Your task to perform on an android device: make emails show in primary in the gmail app Image 0: 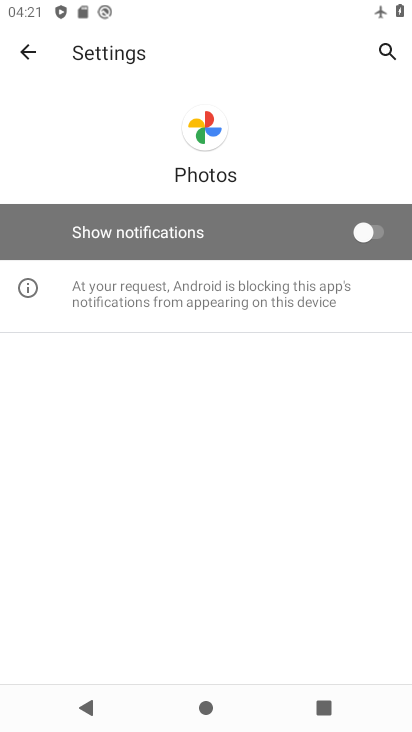
Step 0: press home button
Your task to perform on an android device: make emails show in primary in the gmail app Image 1: 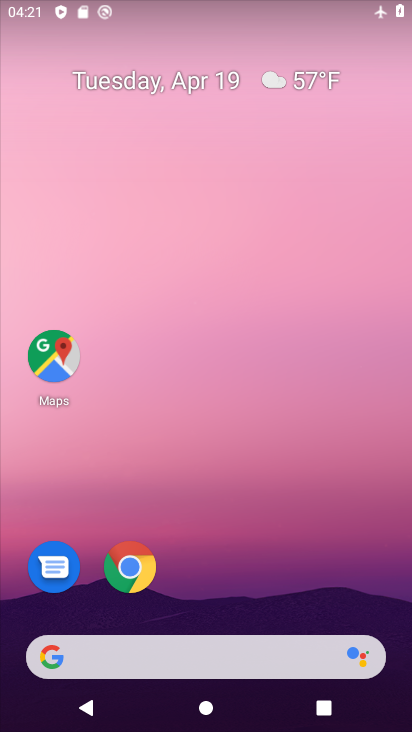
Step 1: drag from (370, 571) to (367, 146)
Your task to perform on an android device: make emails show in primary in the gmail app Image 2: 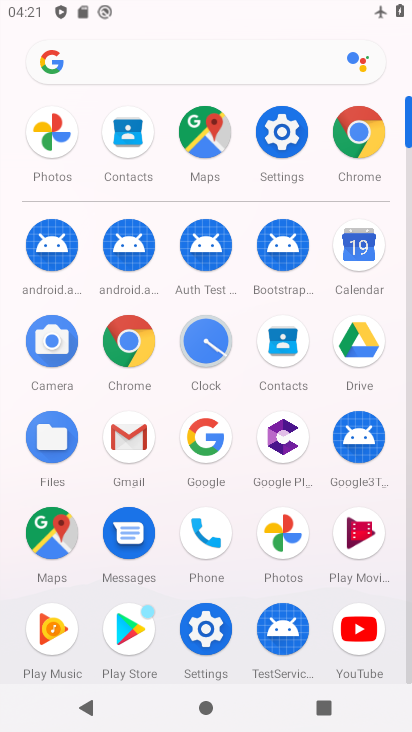
Step 2: click (134, 446)
Your task to perform on an android device: make emails show in primary in the gmail app Image 3: 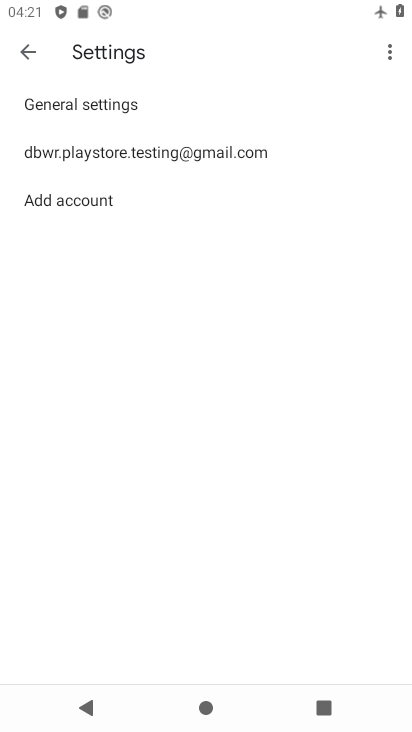
Step 3: click (175, 154)
Your task to perform on an android device: make emails show in primary in the gmail app Image 4: 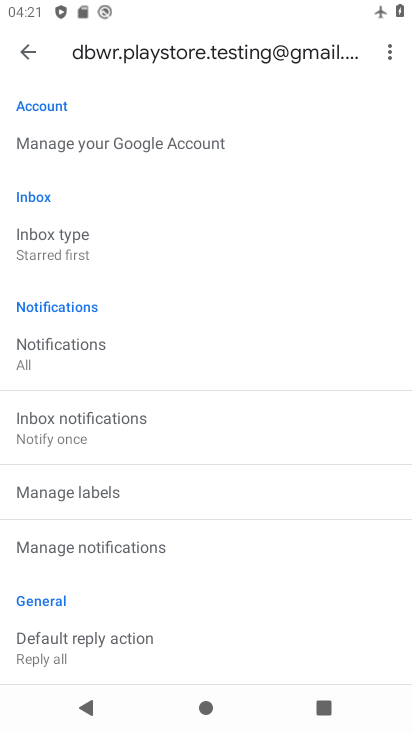
Step 4: drag from (290, 566) to (290, 448)
Your task to perform on an android device: make emails show in primary in the gmail app Image 5: 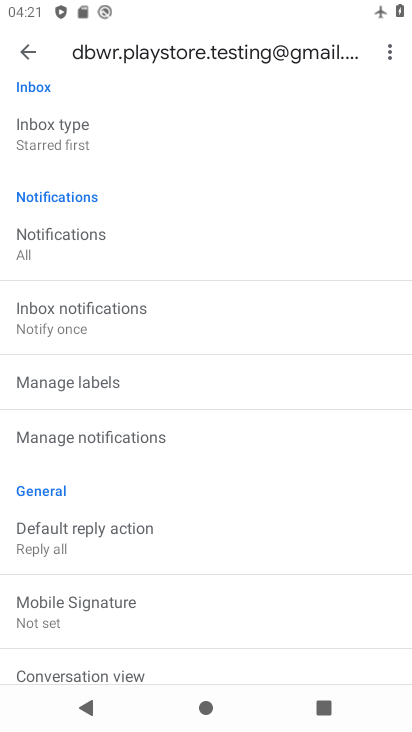
Step 5: drag from (286, 596) to (289, 445)
Your task to perform on an android device: make emails show in primary in the gmail app Image 6: 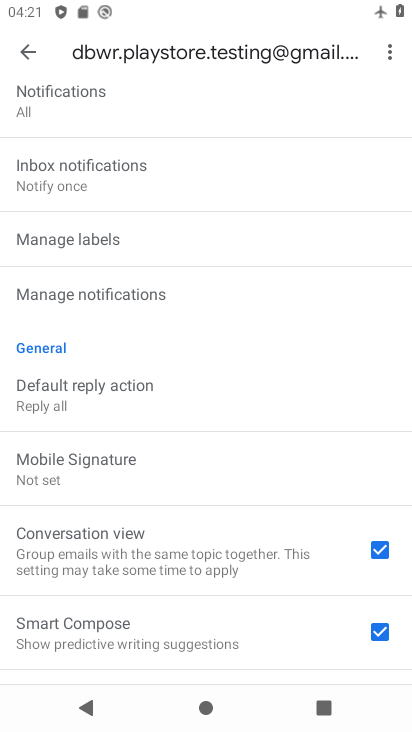
Step 6: drag from (277, 608) to (294, 432)
Your task to perform on an android device: make emails show in primary in the gmail app Image 7: 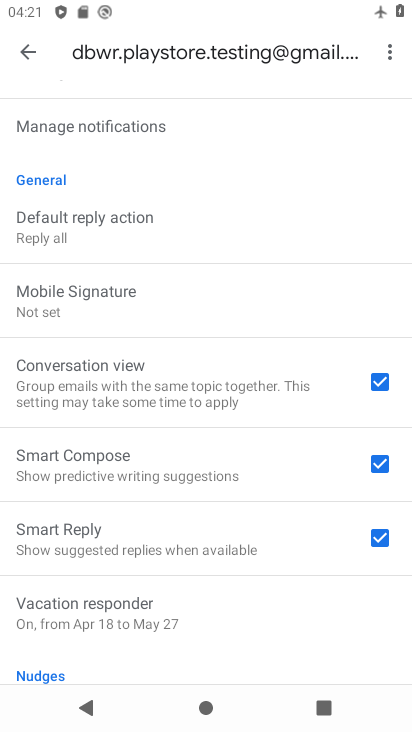
Step 7: drag from (288, 584) to (294, 435)
Your task to perform on an android device: make emails show in primary in the gmail app Image 8: 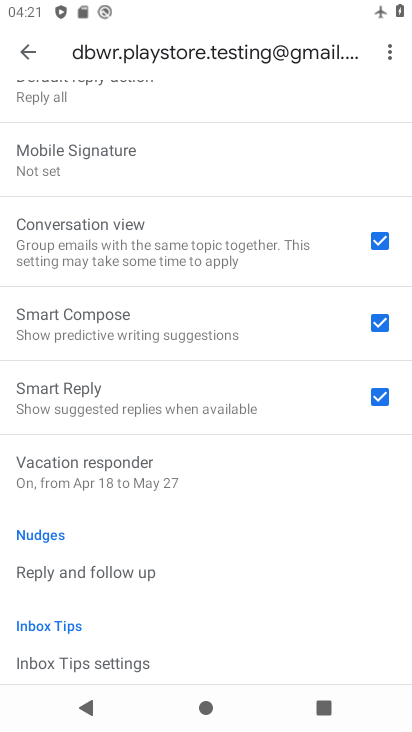
Step 8: drag from (258, 597) to (278, 449)
Your task to perform on an android device: make emails show in primary in the gmail app Image 9: 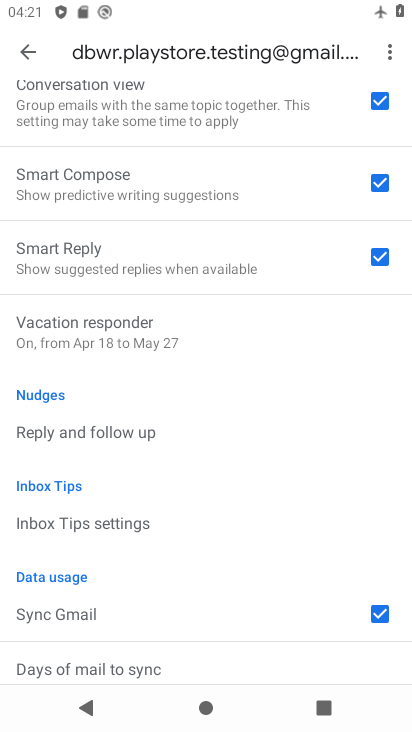
Step 9: drag from (251, 542) to (250, 397)
Your task to perform on an android device: make emails show in primary in the gmail app Image 10: 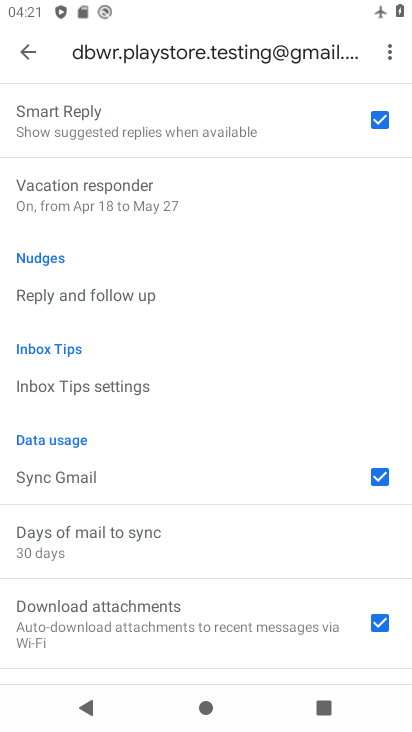
Step 10: drag from (304, 295) to (306, 439)
Your task to perform on an android device: make emails show in primary in the gmail app Image 11: 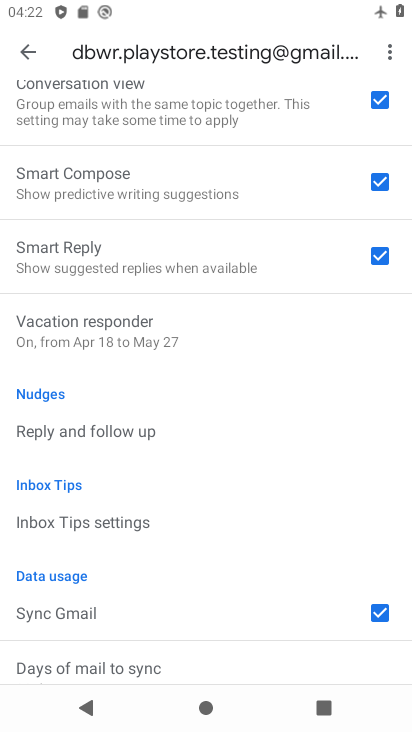
Step 11: drag from (297, 262) to (284, 437)
Your task to perform on an android device: make emails show in primary in the gmail app Image 12: 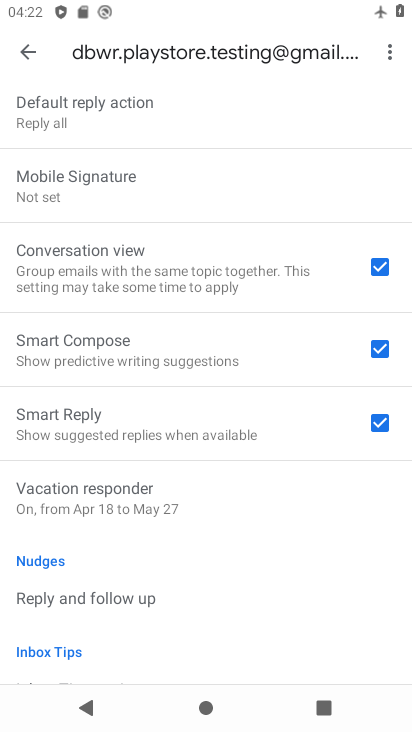
Step 12: drag from (326, 243) to (301, 430)
Your task to perform on an android device: make emails show in primary in the gmail app Image 13: 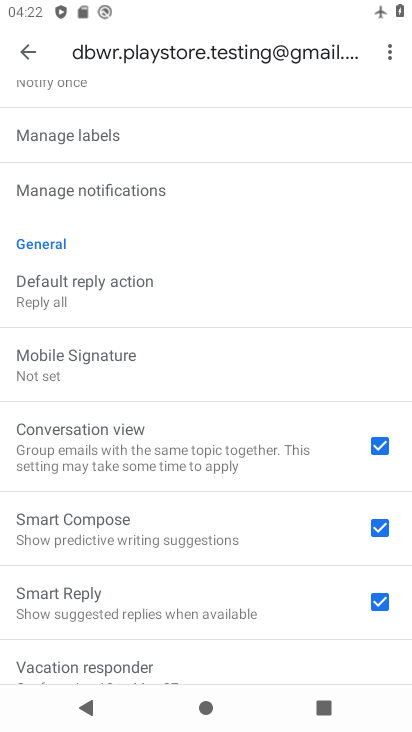
Step 13: drag from (263, 237) to (257, 430)
Your task to perform on an android device: make emails show in primary in the gmail app Image 14: 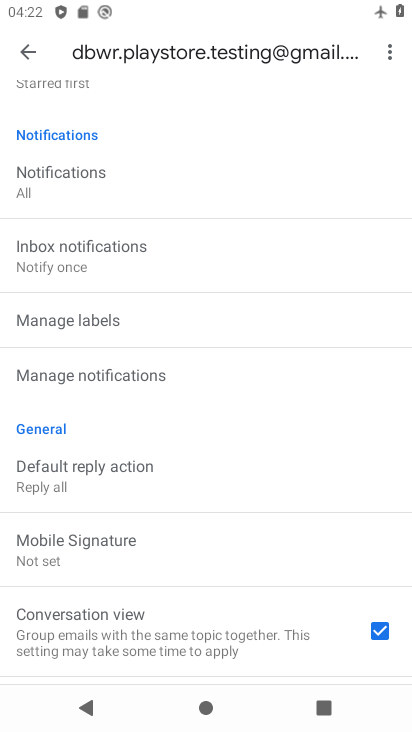
Step 14: drag from (273, 203) to (266, 393)
Your task to perform on an android device: make emails show in primary in the gmail app Image 15: 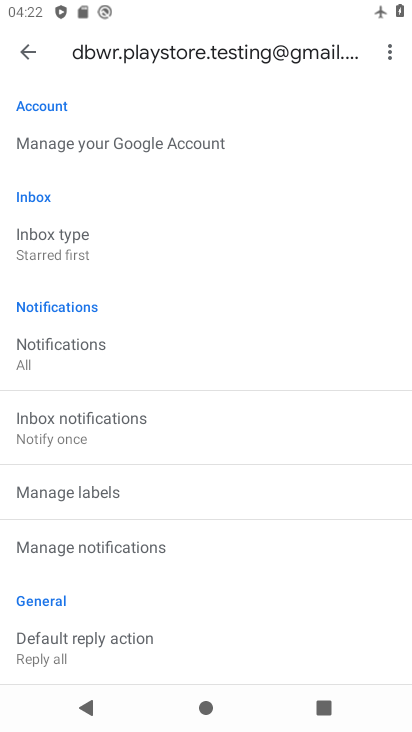
Step 15: click (53, 238)
Your task to perform on an android device: make emails show in primary in the gmail app Image 16: 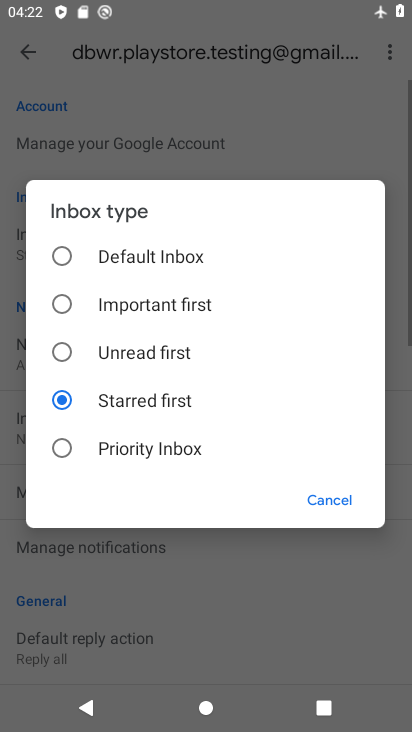
Step 16: click (145, 258)
Your task to perform on an android device: make emails show in primary in the gmail app Image 17: 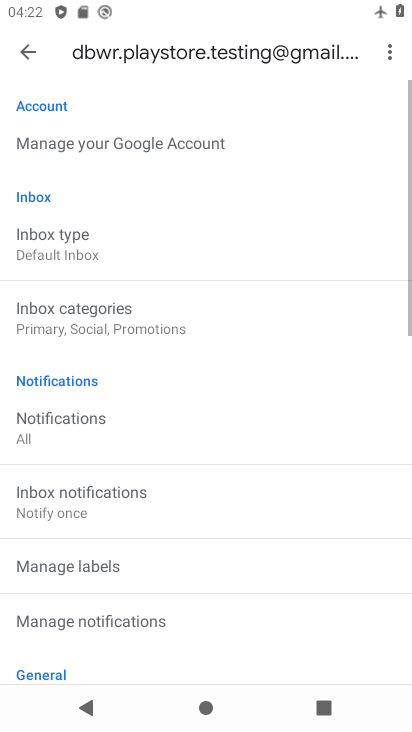
Step 17: click (138, 313)
Your task to perform on an android device: make emails show in primary in the gmail app Image 18: 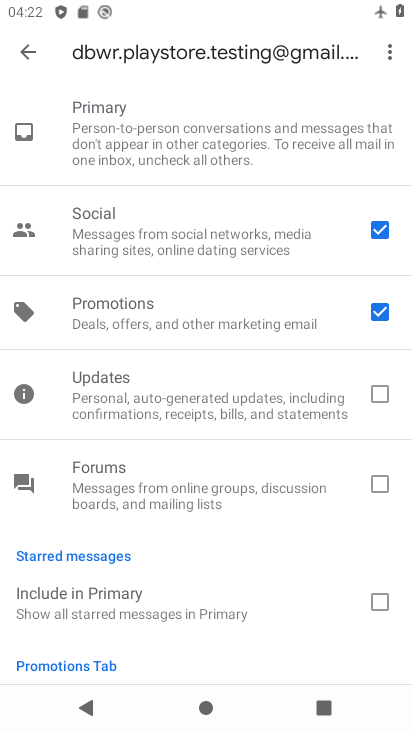
Step 18: click (373, 313)
Your task to perform on an android device: make emails show in primary in the gmail app Image 19: 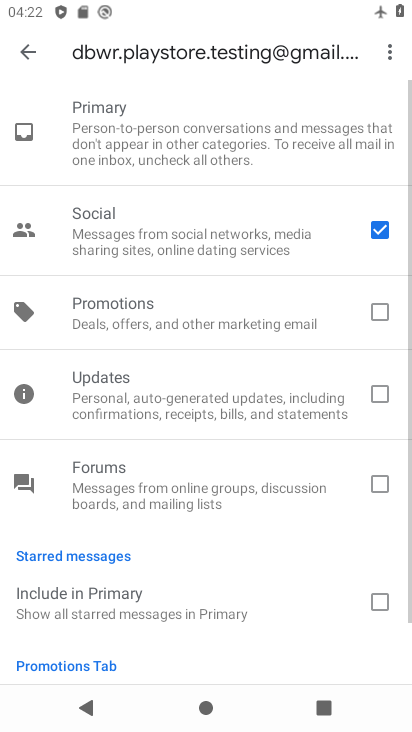
Step 19: click (383, 232)
Your task to perform on an android device: make emails show in primary in the gmail app Image 20: 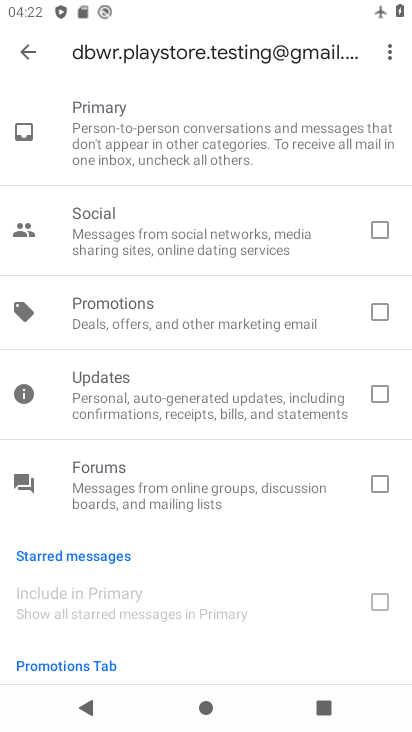
Step 20: task complete